Your task to perform on an android device: Open the stopwatch Image 0: 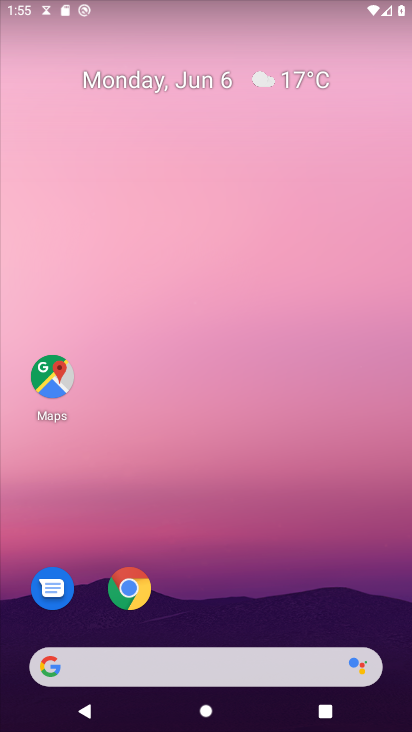
Step 0: drag from (199, 594) to (61, 4)
Your task to perform on an android device: Open the stopwatch Image 1: 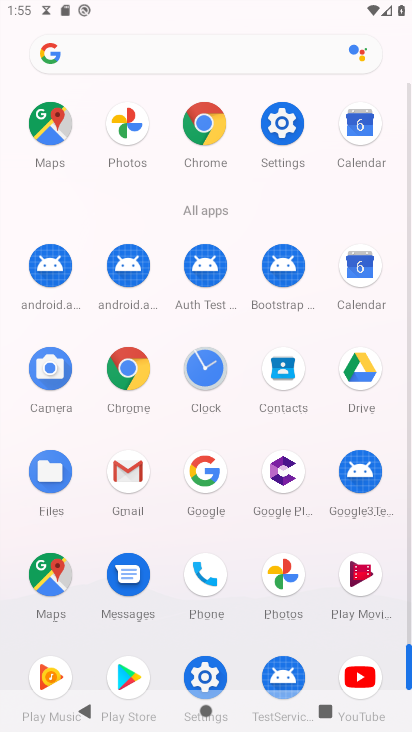
Step 1: click (200, 376)
Your task to perform on an android device: Open the stopwatch Image 2: 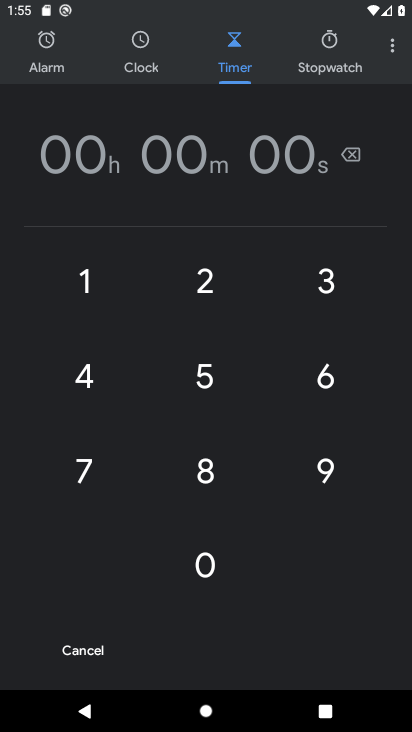
Step 2: click (332, 56)
Your task to perform on an android device: Open the stopwatch Image 3: 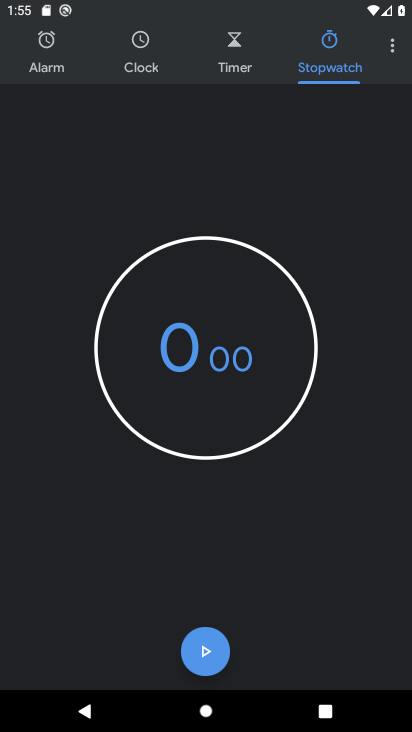
Step 3: task complete